Your task to perform on an android device: Go to Wikipedia Image 0: 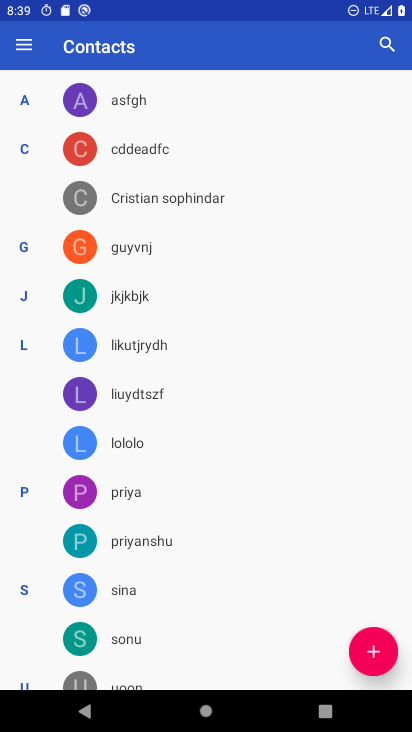
Step 0: press home button
Your task to perform on an android device: Go to Wikipedia Image 1: 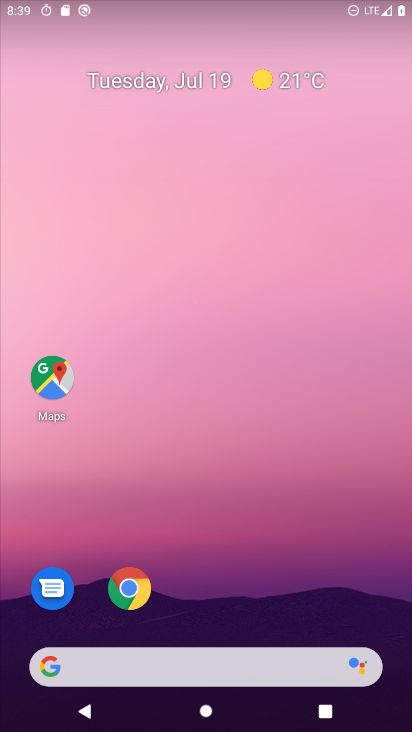
Step 1: drag from (192, 595) to (190, 207)
Your task to perform on an android device: Go to Wikipedia Image 2: 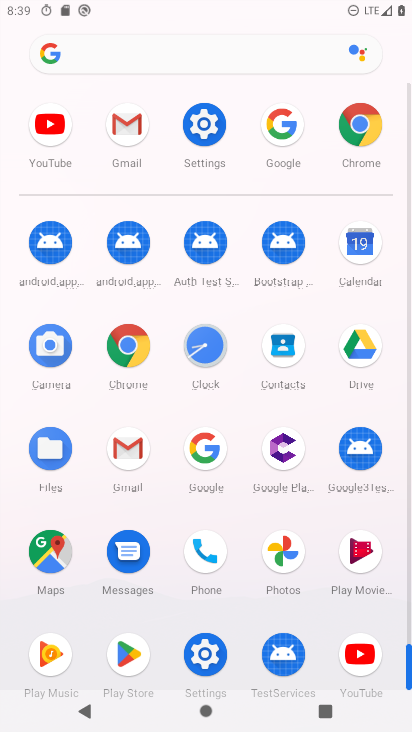
Step 2: click (118, 347)
Your task to perform on an android device: Go to Wikipedia Image 3: 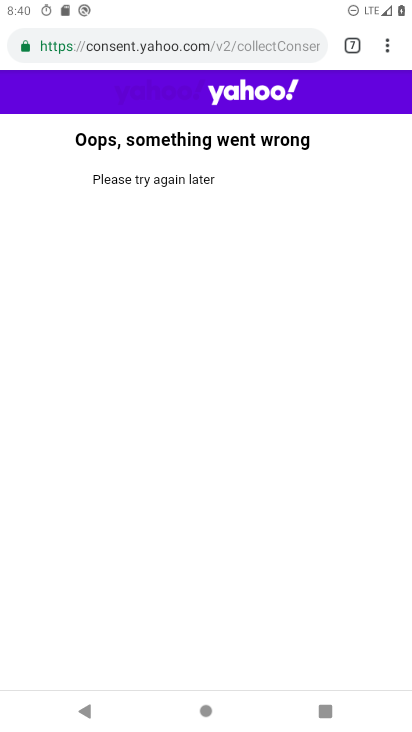
Step 3: click (349, 42)
Your task to perform on an android device: Go to Wikipedia Image 4: 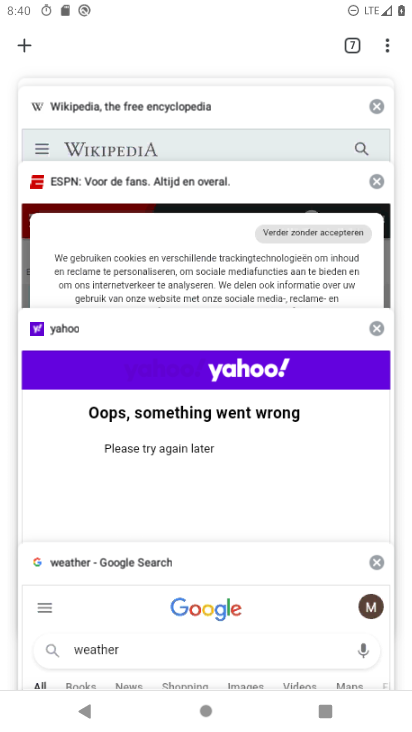
Step 4: click (129, 147)
Your task to perform on an android device: Go to Wikipedia Image 5: 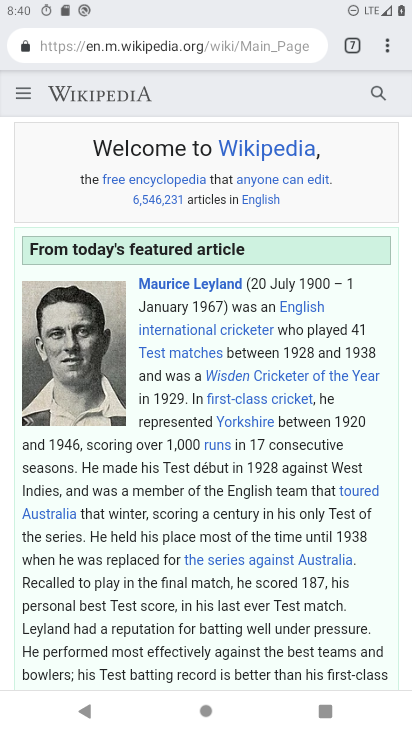
Step 5: task complete